Your task to perform on an android device: Search for vegetarian restaurants on Maps Image 0: 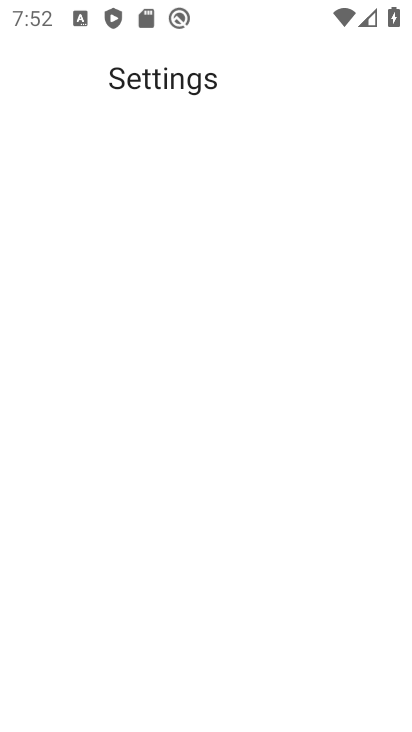
Step 0: click (274, 646)
Your task to perform on an android device: Search for vegetarian restaurants on Maps Image 1: 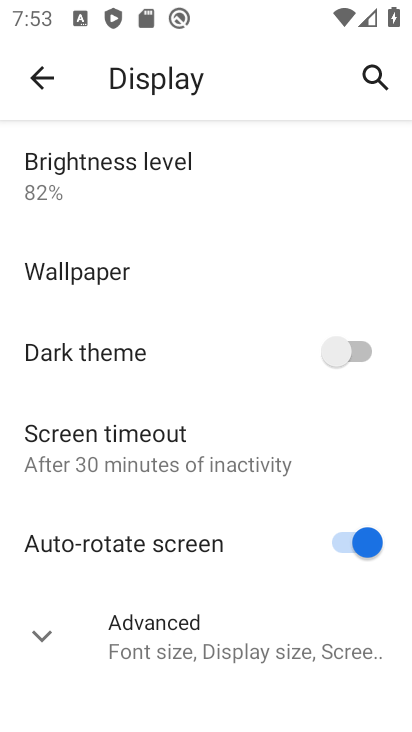
Step 1: press home button
Your task to perform on an android device: Search for vegetarian restaurants on Maps Image 2: 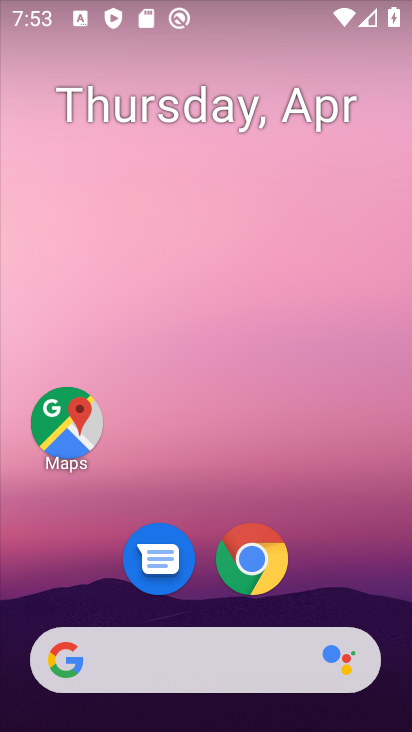
Step 2: click (59, 443)
Your task to perform on an android device: Search for vegetarian restaurants on Maps Image 3: 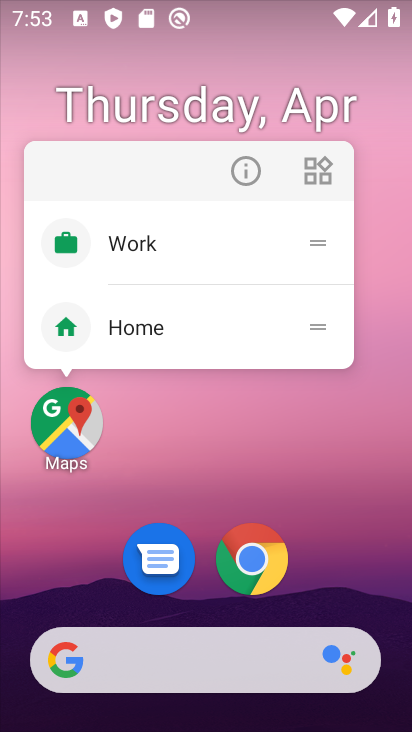
Step 3: click (59, 443)
Your task to perform on an android device: Search for vegetarian restaurants on Maps Image 4: 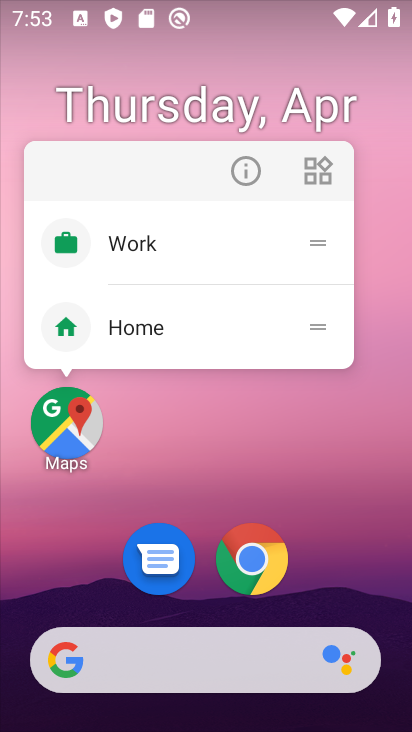
Step 4: click (59, 443)
Your task to perform on an android device: Search for vegetarian restaurants on Maps Image 5: 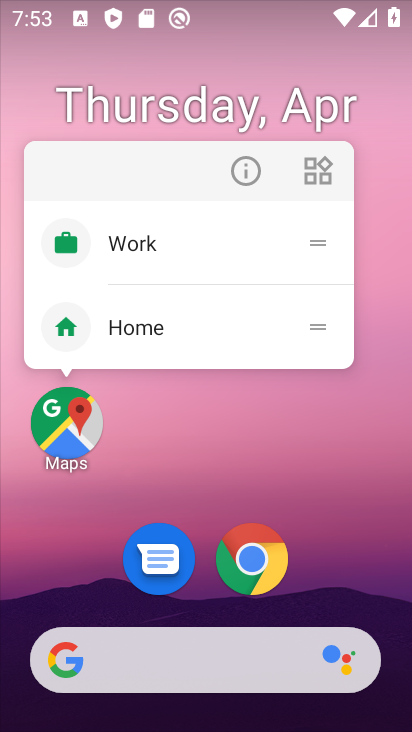
Step 5: click (59, 443)
Your task to perform on an android device: Search for vegetarian restaurants on Maps Image 6: 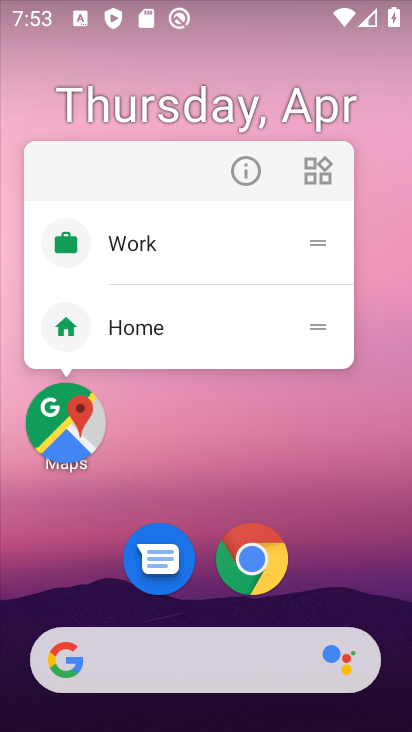
Step 6: click (59, 443)
Your task to perform on an android device: Search for vegetarian restaurants on Maps Image 7: 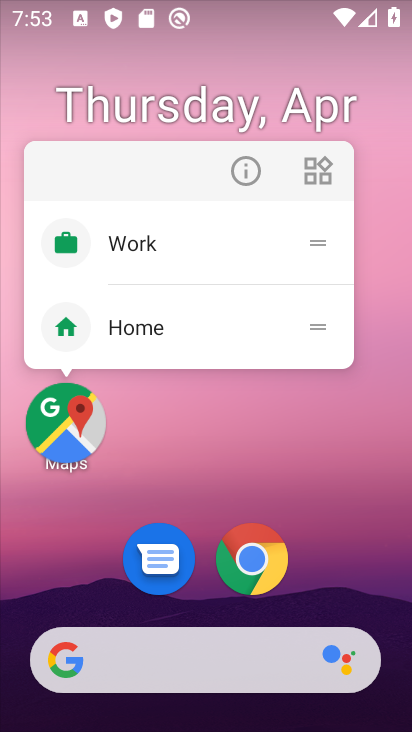
Step 7: click (59, 443)
Your task to perform on an android device: Search for vegetarian restaurants on Maps Image 8: 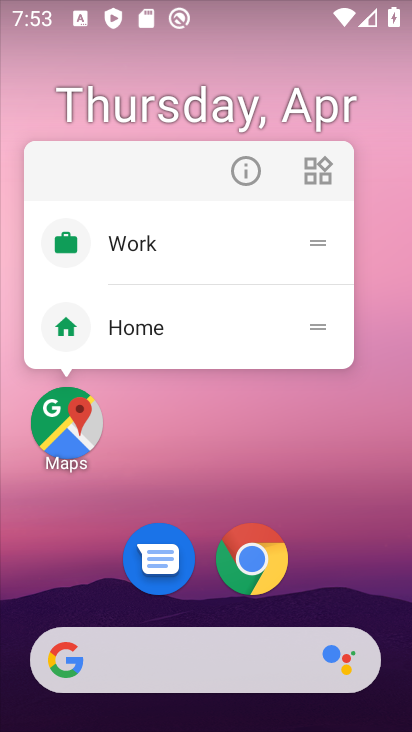
Step 8: click (59, 444)
Your task to perform on an android device: Search for vegetarian restaurants on Maps Image 9: 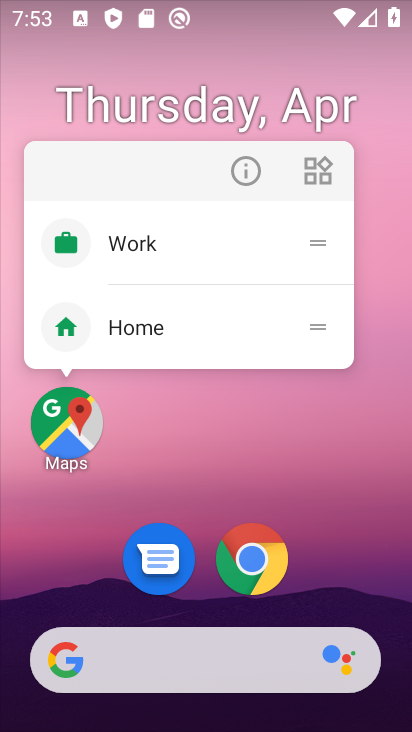
Step 9: click (74, 450)
Your task to perform on an android device: Search for vegetarian restaurants on Maps Image 10: 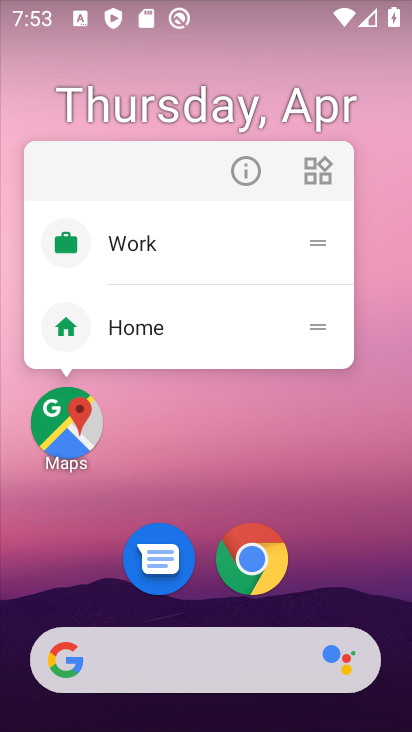
Step 10: click (75, 450)
Your task to perform on an android device: Search for vegetarian restaurants on Maps Image 11: 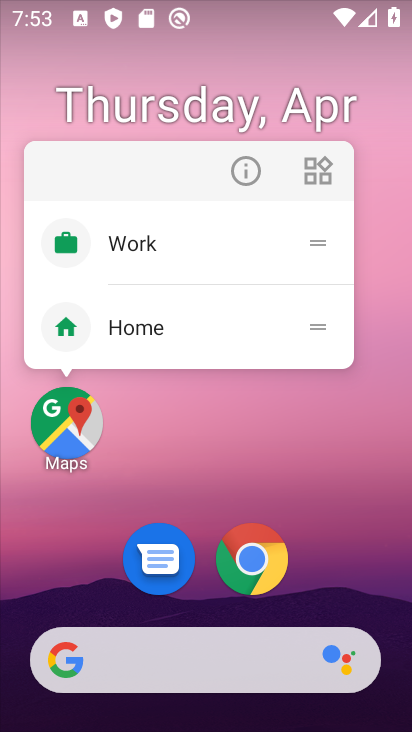
Step 11: click (69, 435)
Your task to perform on an android device: Search for vegetarian restaurants on Maps Image 12: 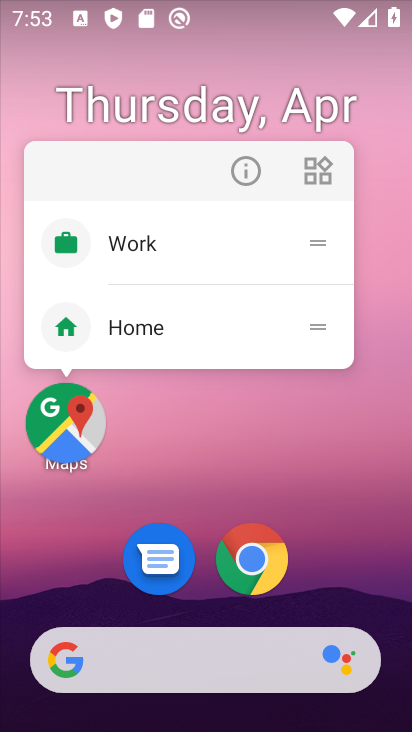
Step 12: click (69, 435)
Your task to perform on an android device: Search for vegetarian restaurants on Maps Image 13: 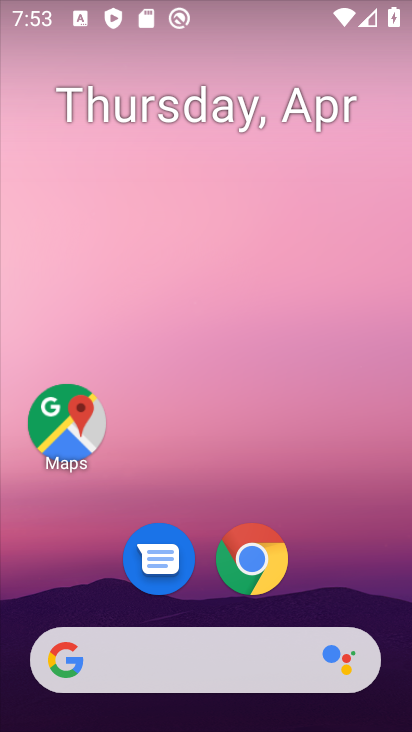
Step 13: click (190, 435)
Your task to perform on an android device: Search for vegetarian restaurants on Maps Image 14: 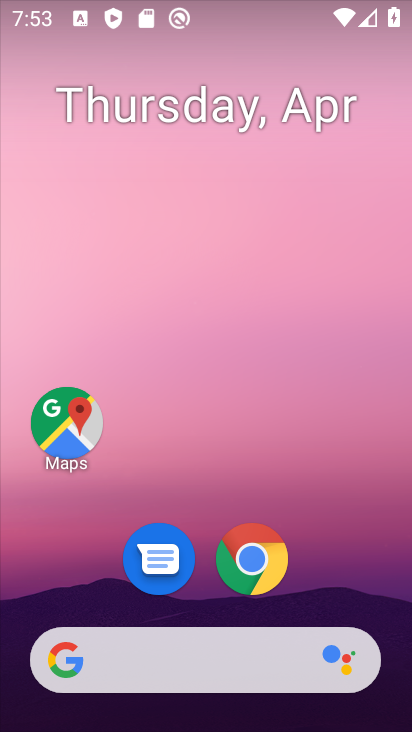
Step 14: click (43, 415)
Your task to perform on an android device: Search for vegetarian restaurants on Maps Image 15: 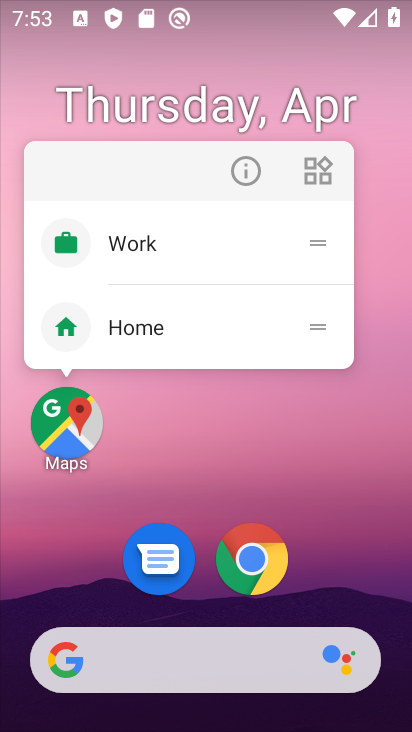
Step 15: click (48, 424)
Your task to perform on an android device: Search for vegetarian restaurants on Maps Image 16: 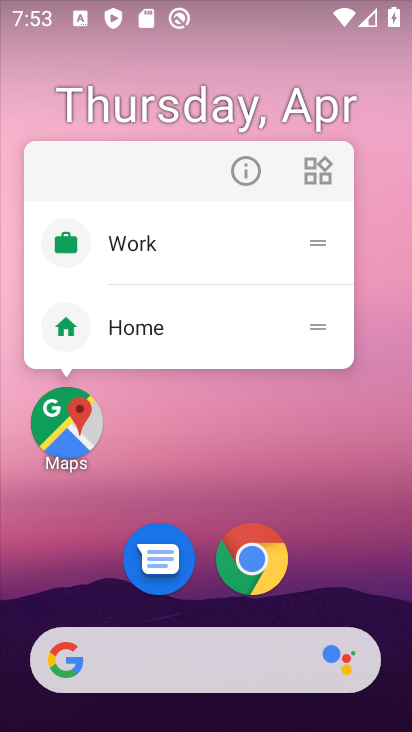
Step 16: click (76, 446)
Your task to perform on an android device: Search for vegetarian restaurants on Maps Image 17: 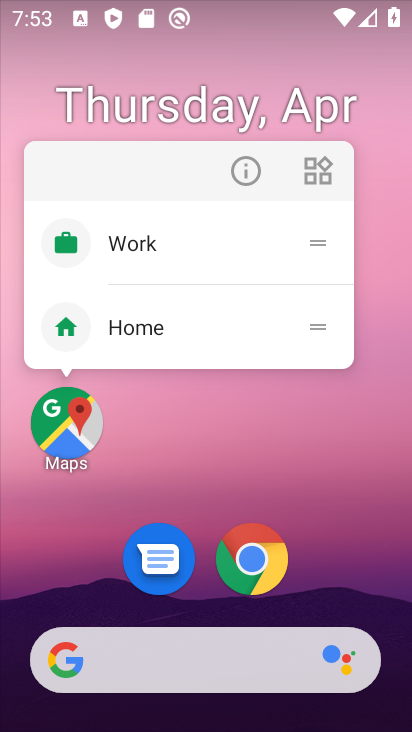
Step 17: click (76, 445)
Your task to perform on an android device: Search for vegetarian restaurants on Maps Image 18: 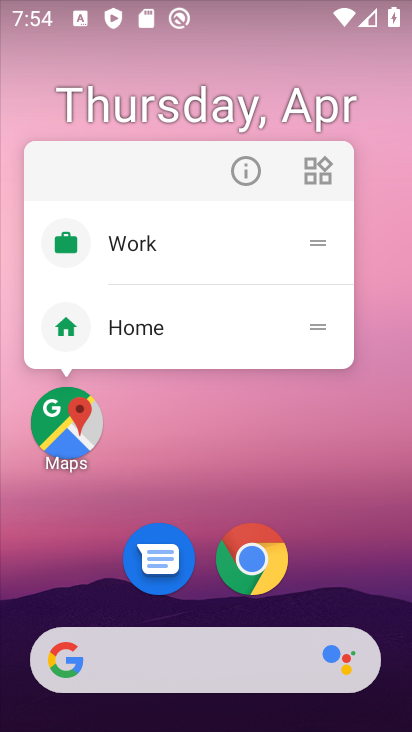
Step 18: click (76, 445)
Your task to perform on an android device: Search for vegetarian restaurants on Maps Image 19: 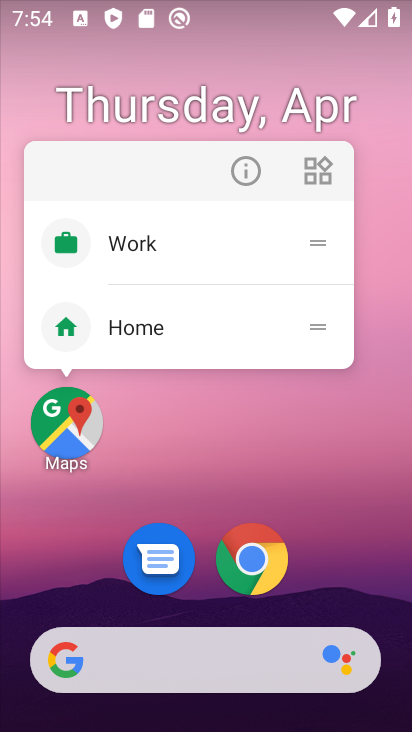
Step 19: click (76, 445)
Your task to perform on an android device: Search for vegetarian restaurants on Maps Image 20: 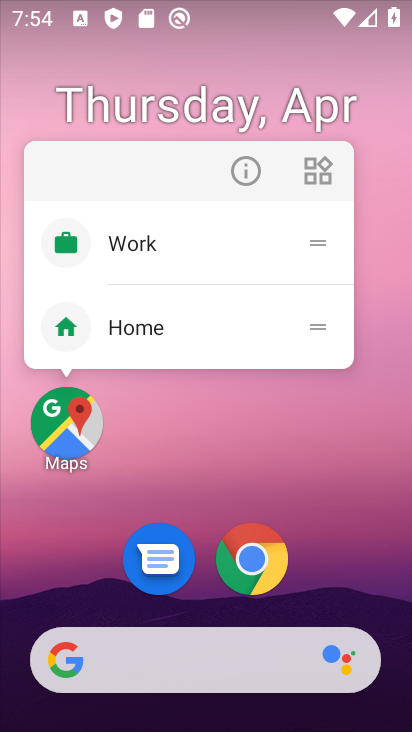
Step 20: click (76, 446)
Your task to perform on an android device: Search for vegetarian restaurants on Maps Image 21: 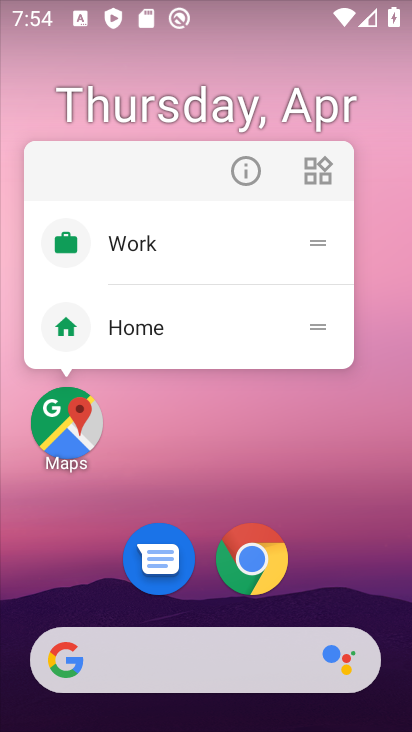
Step 21: click (76, 446)
Your task to perform on an android device: Search for vegetarian restaurants on Maps Image 22: 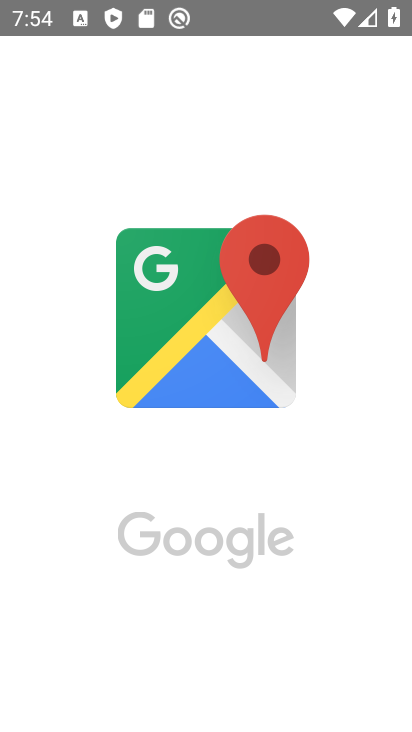
Step 22: click (76, 446)
Your task to perform on an android device: Search for vegetarian restaurants on Maps Image 23: 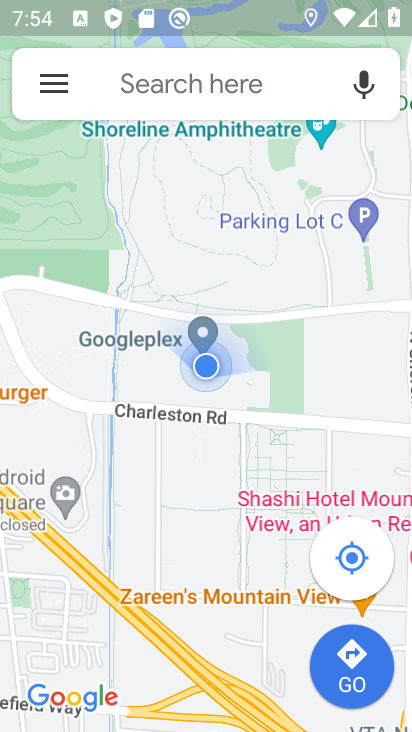
Step 23: click (204, 69)
Your task to perform on an android device: Search for vegetarian restaurants on Maps Image 24: 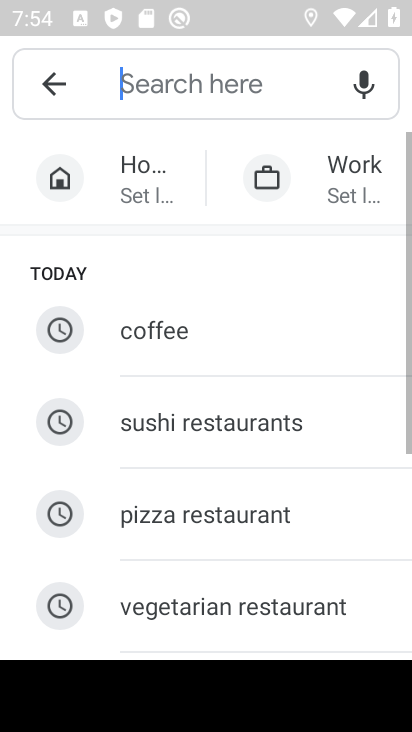
Step 24: click (277, 606)
Your task to perform on an android device: Search for vegetarian restaurants on Maps Image 25: 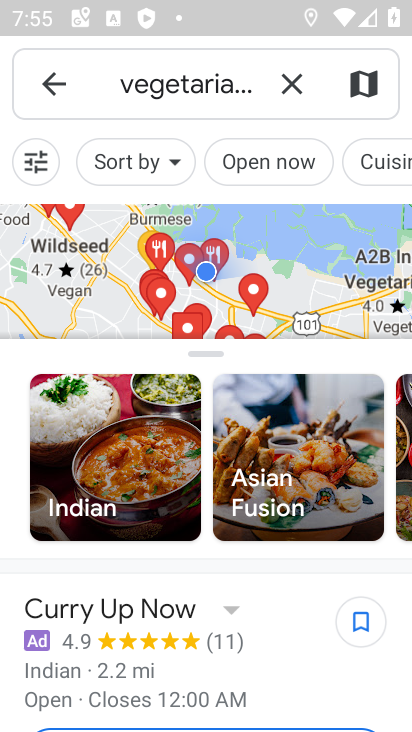
Step 25: task complete